Your task to perform on an android device: Show me the alarms in the clock app Image 0: 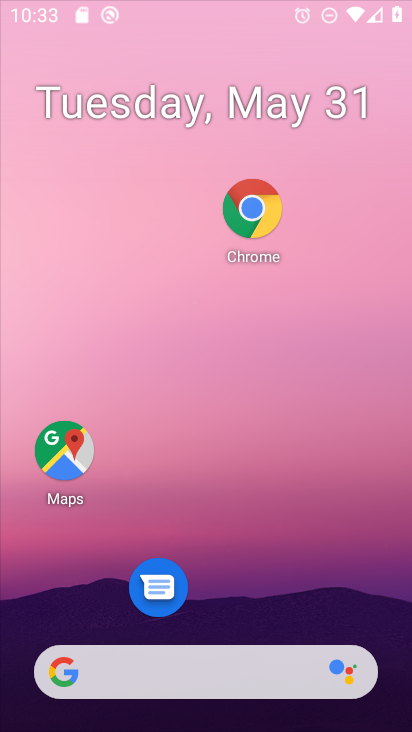
Step 0: press home button
Your task to perform on an android device: Show me the alarms in the clock app Image 1: 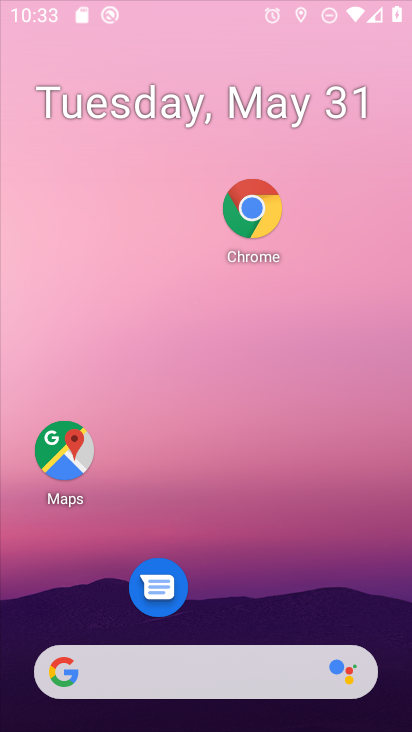
Step 1: drag from (201, 625) to (210, 64)
Your task to perform on an android device: Show me the alarms in the clock app Image 2: 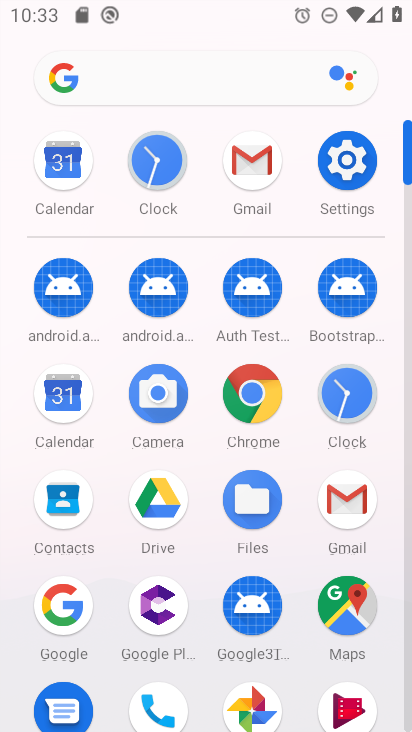
Step 2: click (343, 149)
Your task to perform on an android device: Show me the alarms in the clock app Image 3: 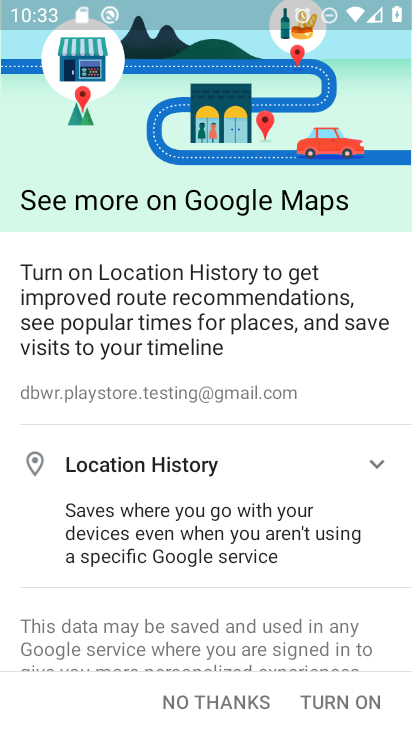
Step 3: drag from (313, 610) to (349, 161)
Your task to perform on an android device: Show me the alarms in the clock app Image 4: 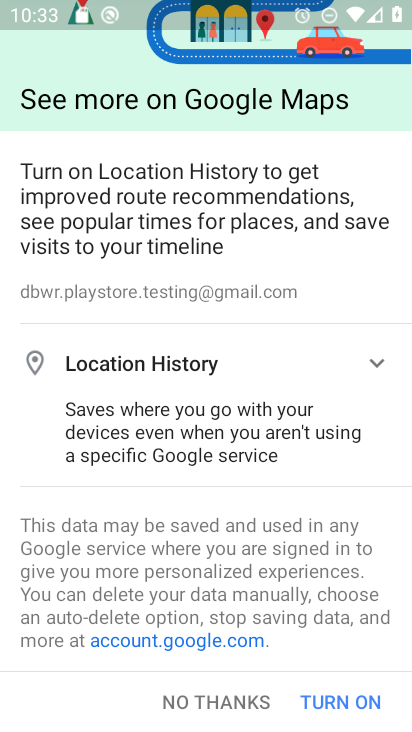
Step 4: click (349, 698)
Your task to perform on an android device: Show me the alarms in the clock app Image 5: 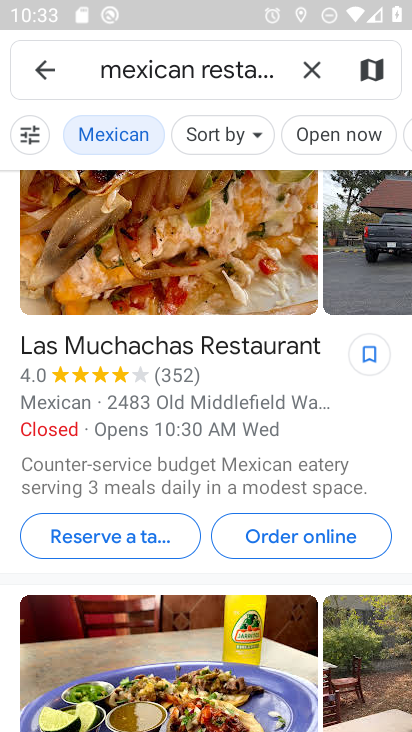
Step 5: press home button
Your task to perform on an android device: Show me the alarms in the clock app Image 6: 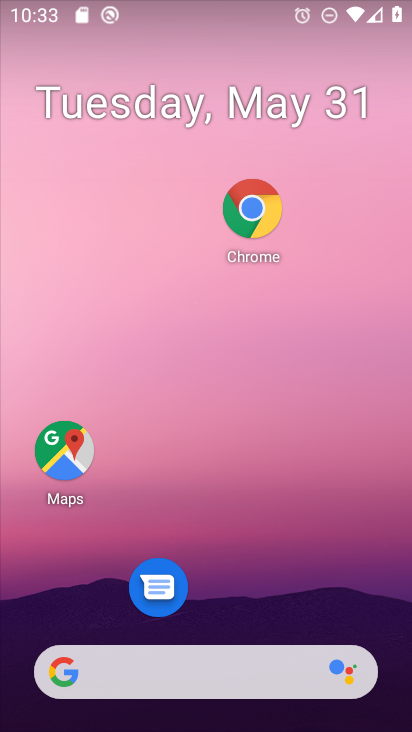
Step 6: drag from (213, 629) to (229, 76)
Your task to perform on an android device: Show me the alarms in the clock app Image 7: 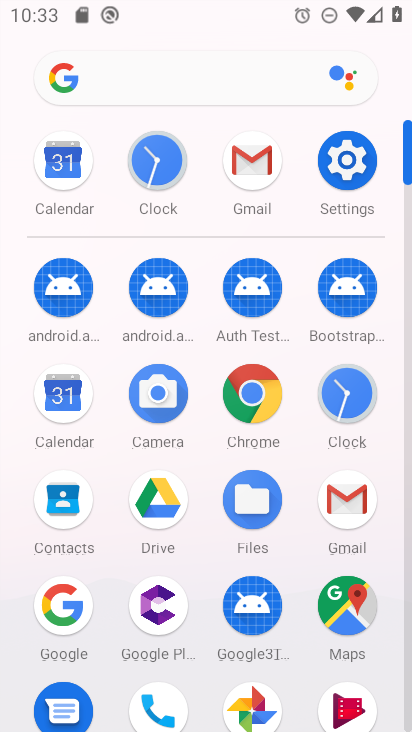
Step 7: click (343, 389)
Your task to perform on an android device: Show me the alarms in the clock app Image 8: 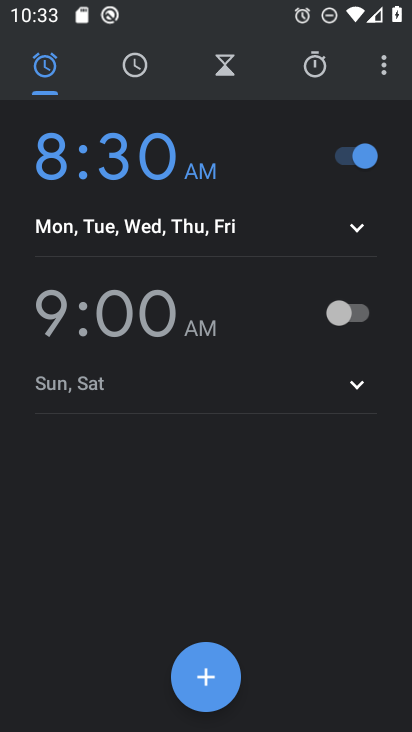
Step 8: click (360, 308)
Your task to perform on an android device: Show me the alarms in the clock app Image 9: 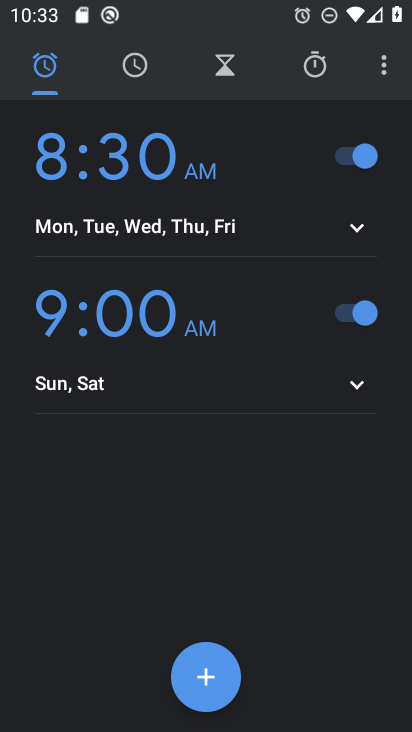
Step 9: task complete